Your task to perform on an android device: turn on notifications settings in the gmail app Image 0: 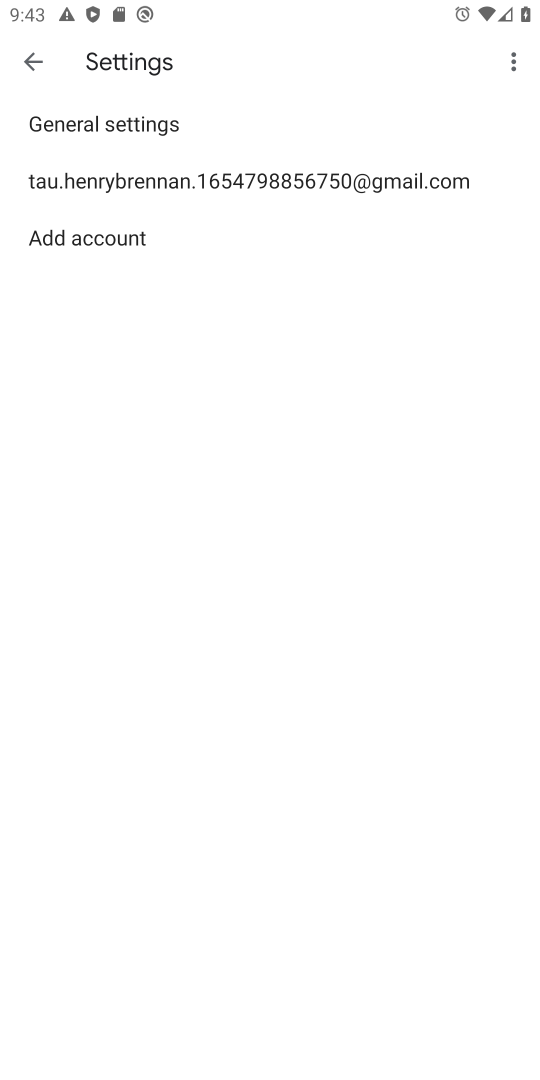
Step 0: click (179, 192)
Your task to perform on an android device: turn on notifications settings in the gmail app Image 1: 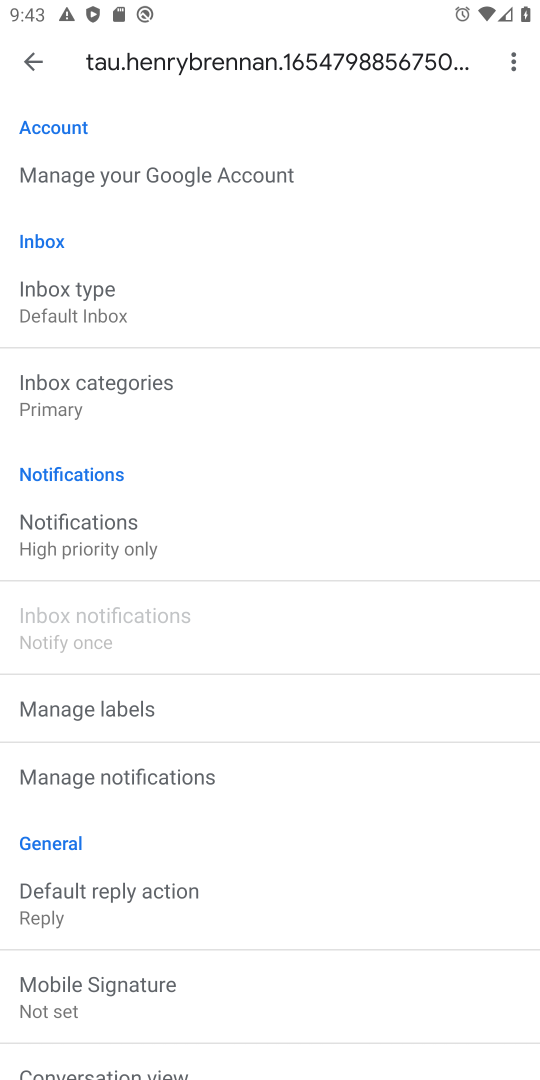
Step 1: click (58, 773)
Your task to perform on an android device: turn on notifications settings in the gmail app Image 2: 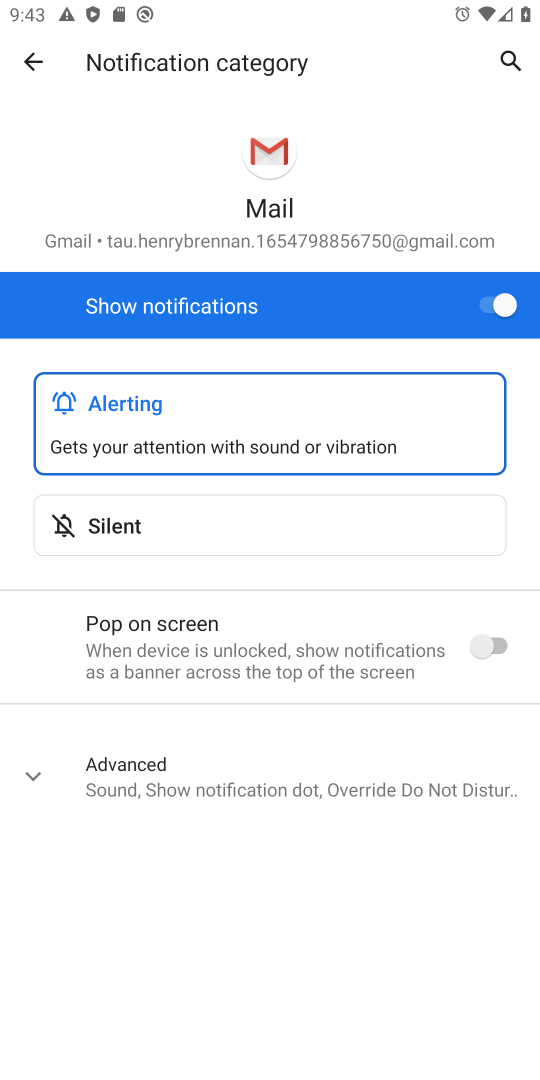
Step 2: task complete